Your task to perform on an android device: Open calendar and show me the first week of next month Image 0: 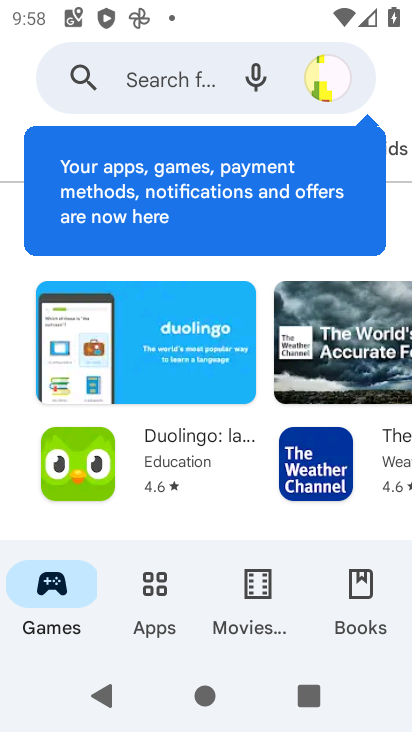
Step 0: press home button
Your task to perform on an android device: Open calendar and show me the first week of next month Image 1: 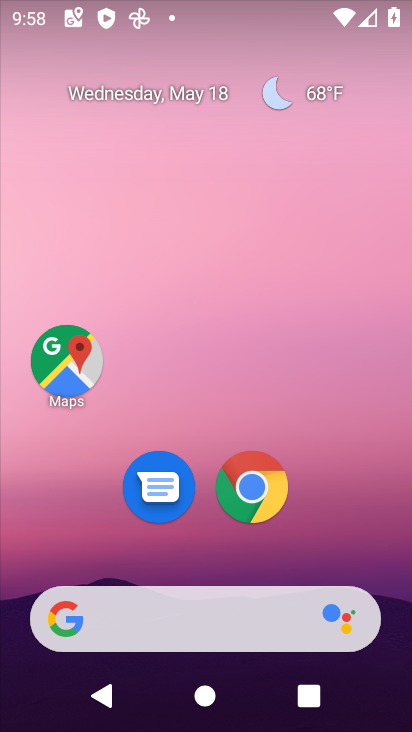
Step 1: drag from (352, 531) to (370, 163)
Your task to perform on an android device: Open calendar and show me the first week of next month Image 2: 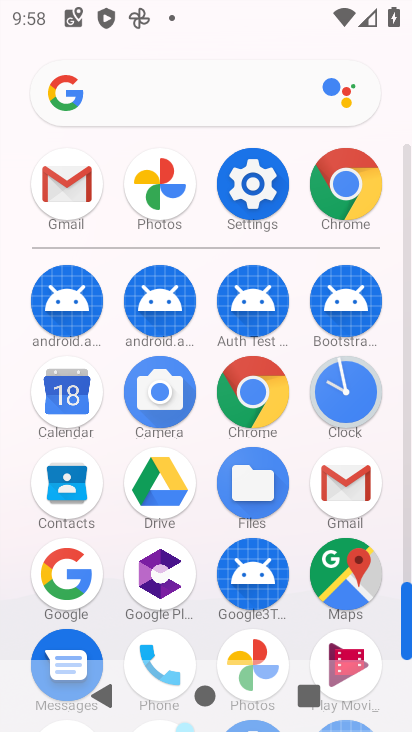
Step 2: click (89, 408)
Your task to perform on an android device: Open calendar and show me the first week of next month Image 3: 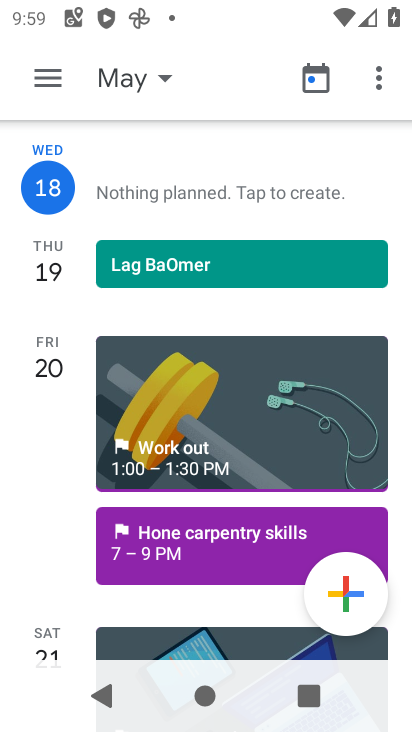
Step 3: click (107, 90)
Your task to perform on an android device: Open calendar and show me the first week of next month Image 4: 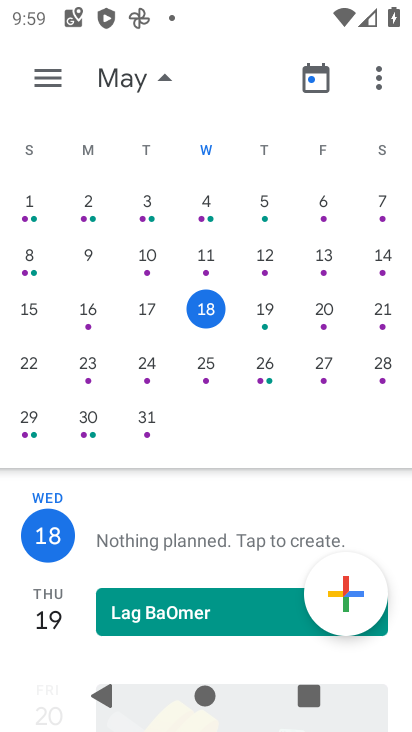
Step 4: task complete